Your task to perform on an android device: Go to Yahoo.com Image 0: 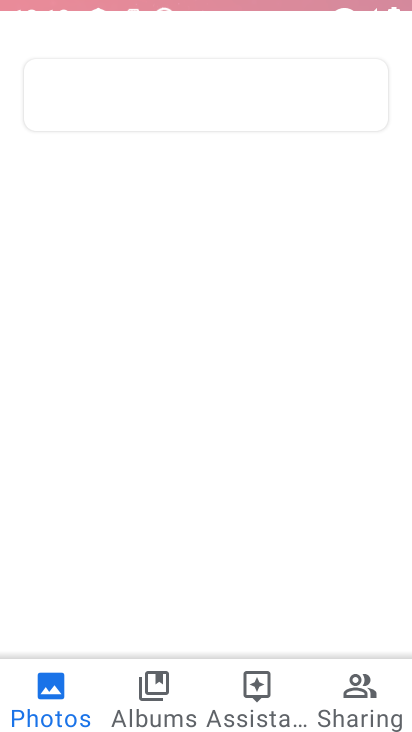
Step 0: click (249, 78)
Your task to perform on an android device: Go to Yahoo.com Image 1: 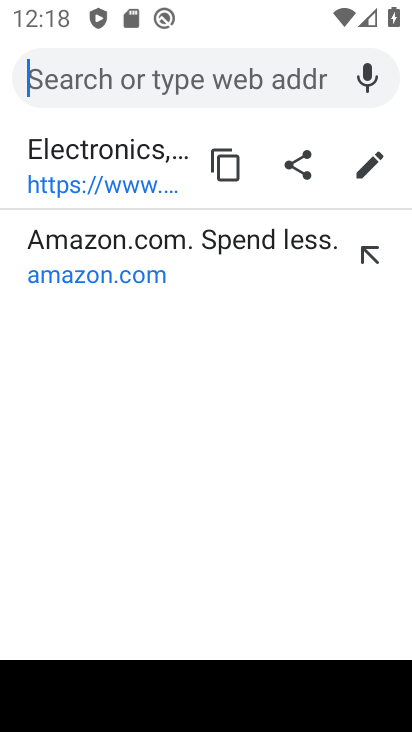
Step 1: press back button
Your task to perform on an android device: Go to Yahoo.com Image 2: 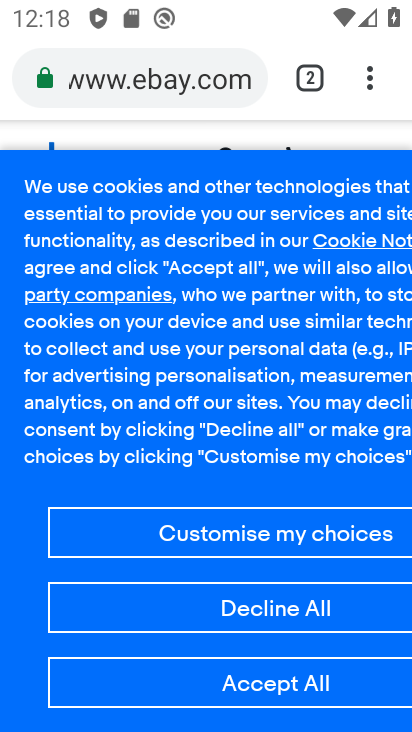
Step 2: press back button
Your task to perform on an android device: Go to Yahoo.com Image 3: 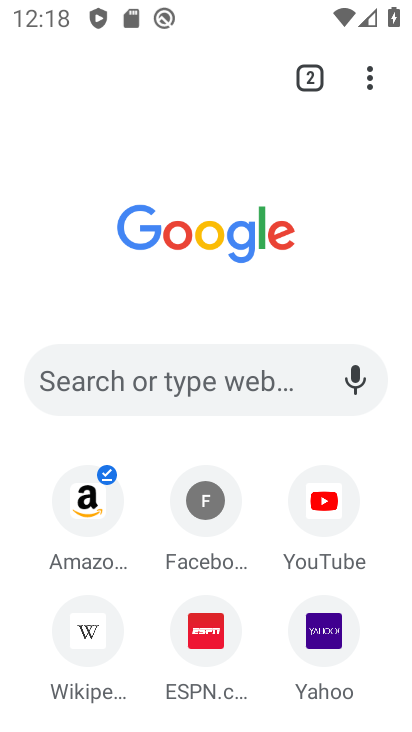
Step 3: press back button
Your task to perform on an android device: Go to Yahoo.com Image 4: 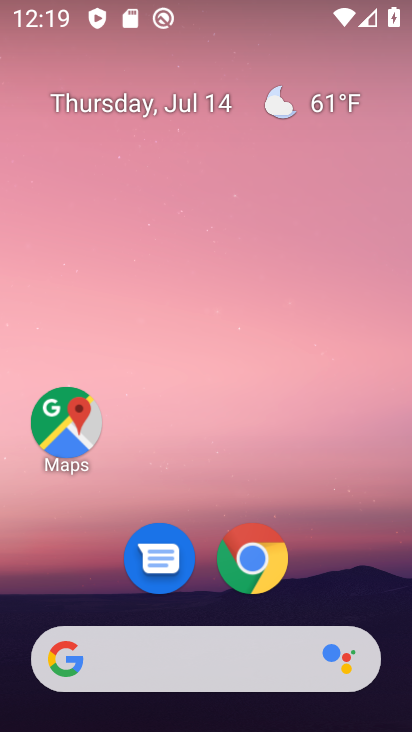
Step 4: click (247, 565)
Your task to perform on an android device: Go to Yahoo.com Image 5: 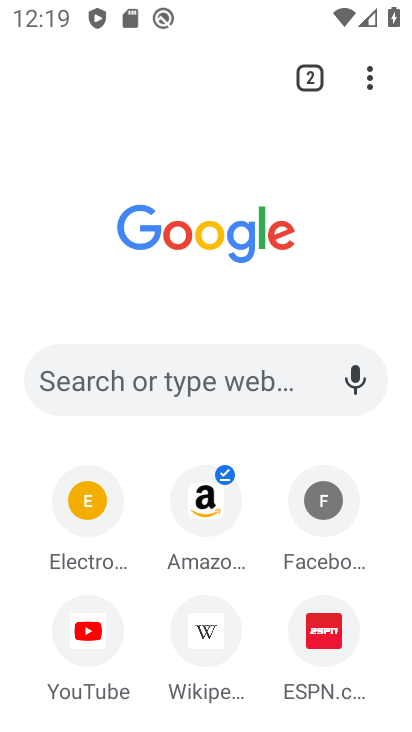
Step 5: drag from (98, 636) to (151, 725)
Your task to perform on an android device: Go to Yahoo.com Image 6: 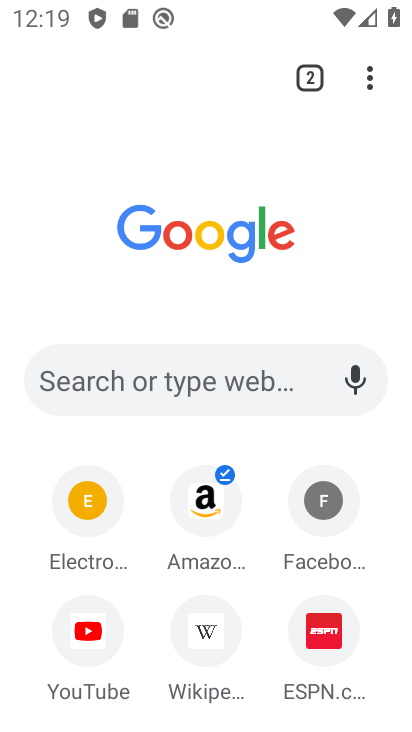
Step 6: click (115, 378)
Your task to perform on an android device: Go to Yahoo.com Image 7: 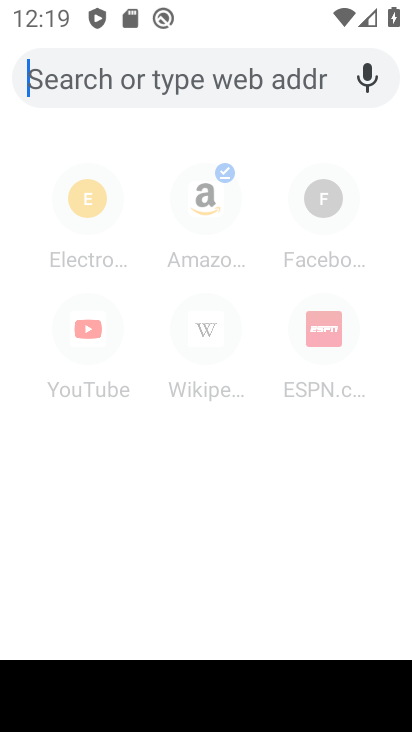
Step 7: click (174, 72)
Your task to perform on an android device: Go to Yahoo.com Image 8: 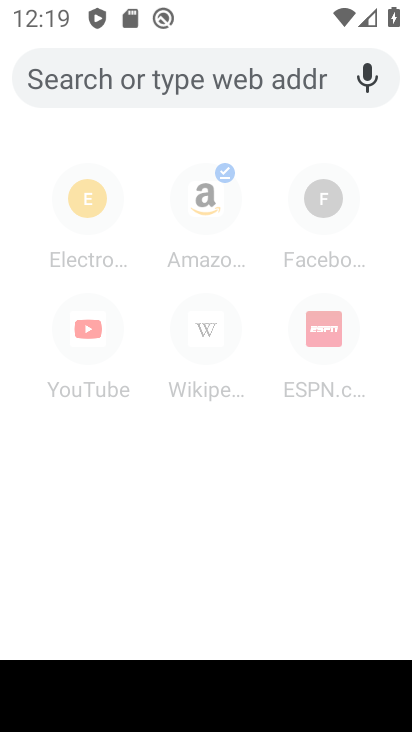
Step 8: type "yahoo.com"
Your task to perform on an android device: Go to Yahoo.com Image 9: 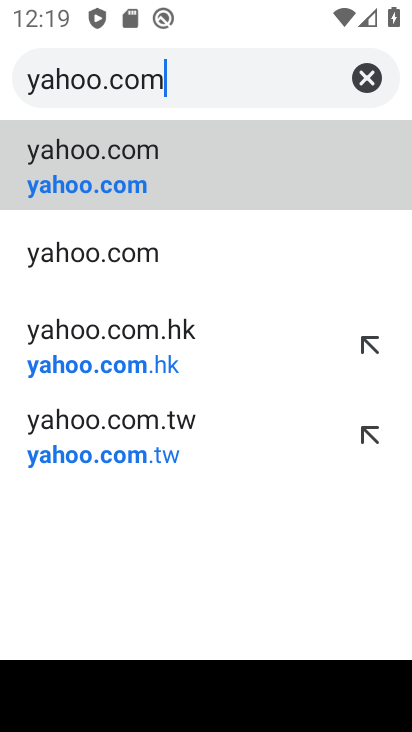
Step 9: click (187, 165)
Your task to perform on an android device: Go to Yahoo.com Image 10: 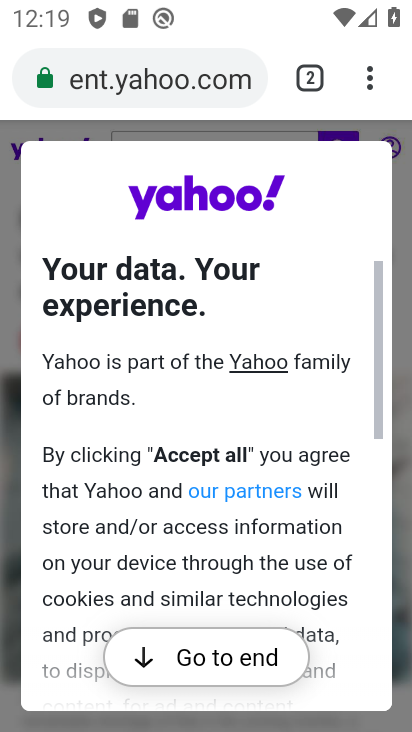
Step 10: task complete